Your task to perform on an android device: Search for "energizer triple a" on walmart.com, select the first entry, add it to the cart, then select checkout. Image 0: 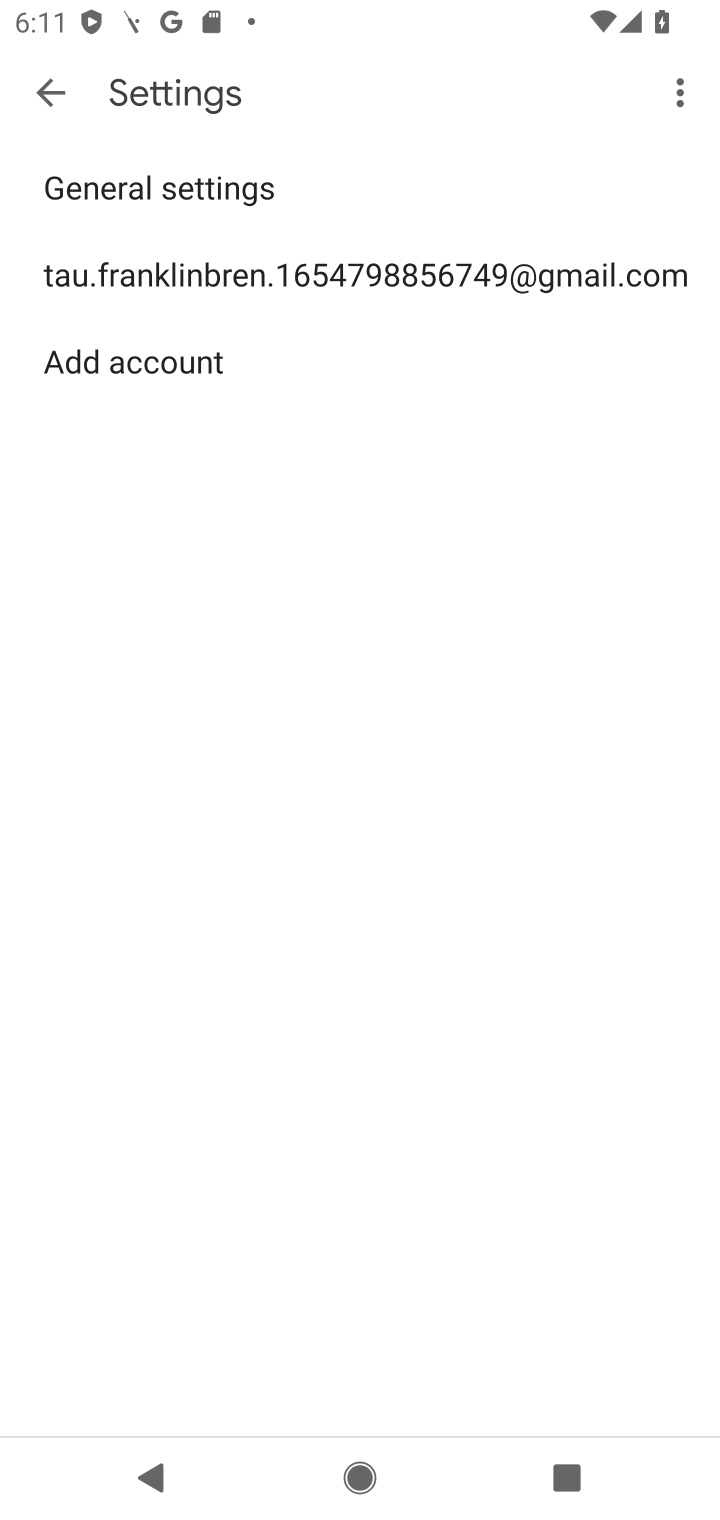
Step 0: press home button
Your task to perform on an android device: Search for "energizer triple a" on walmart.com, select the first entry, add it to the cart, then select checkout. Image 1: 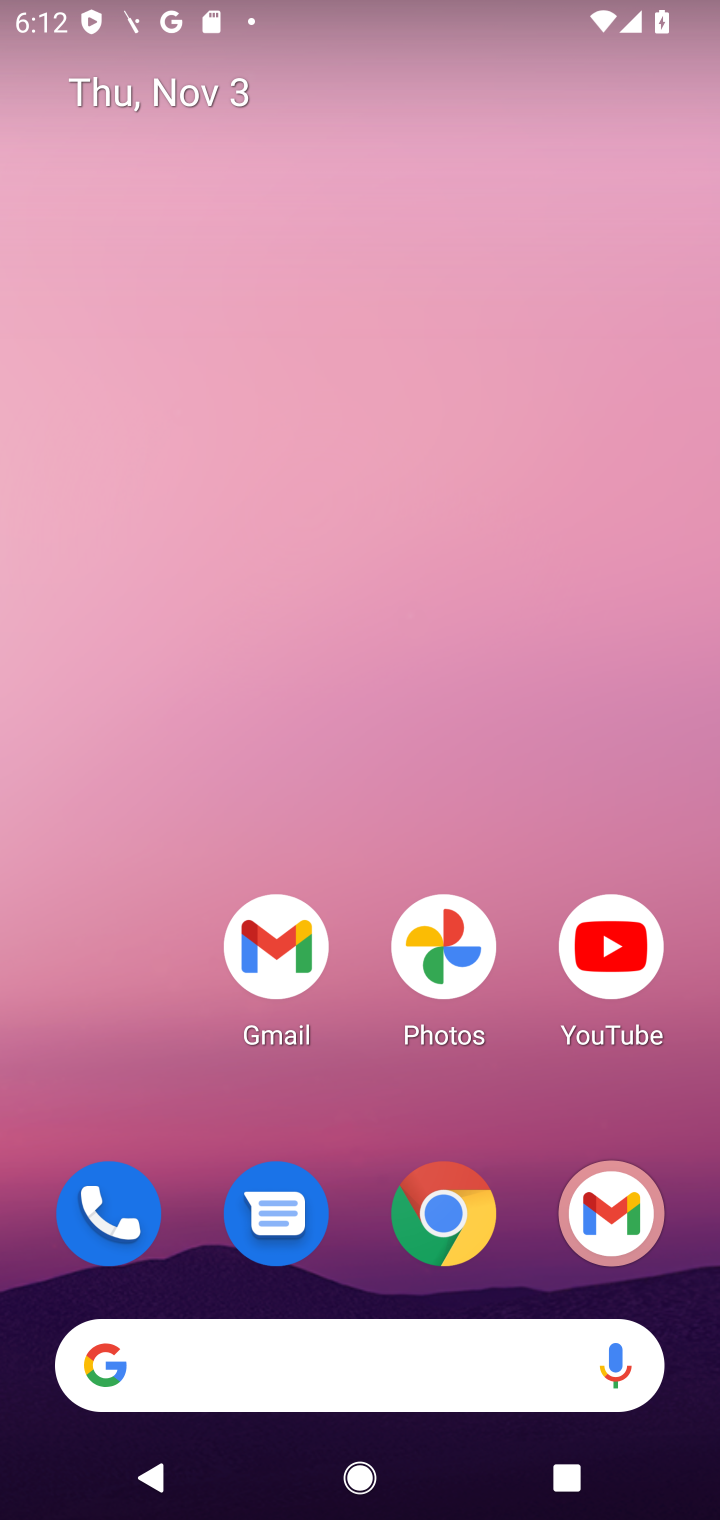
Step 1: click (452, 1229)
Your task to perform on an android device: Search for "energizer triple a" on walmart.com, select the first entry, add it to the cart, then select checkout. Image 2: 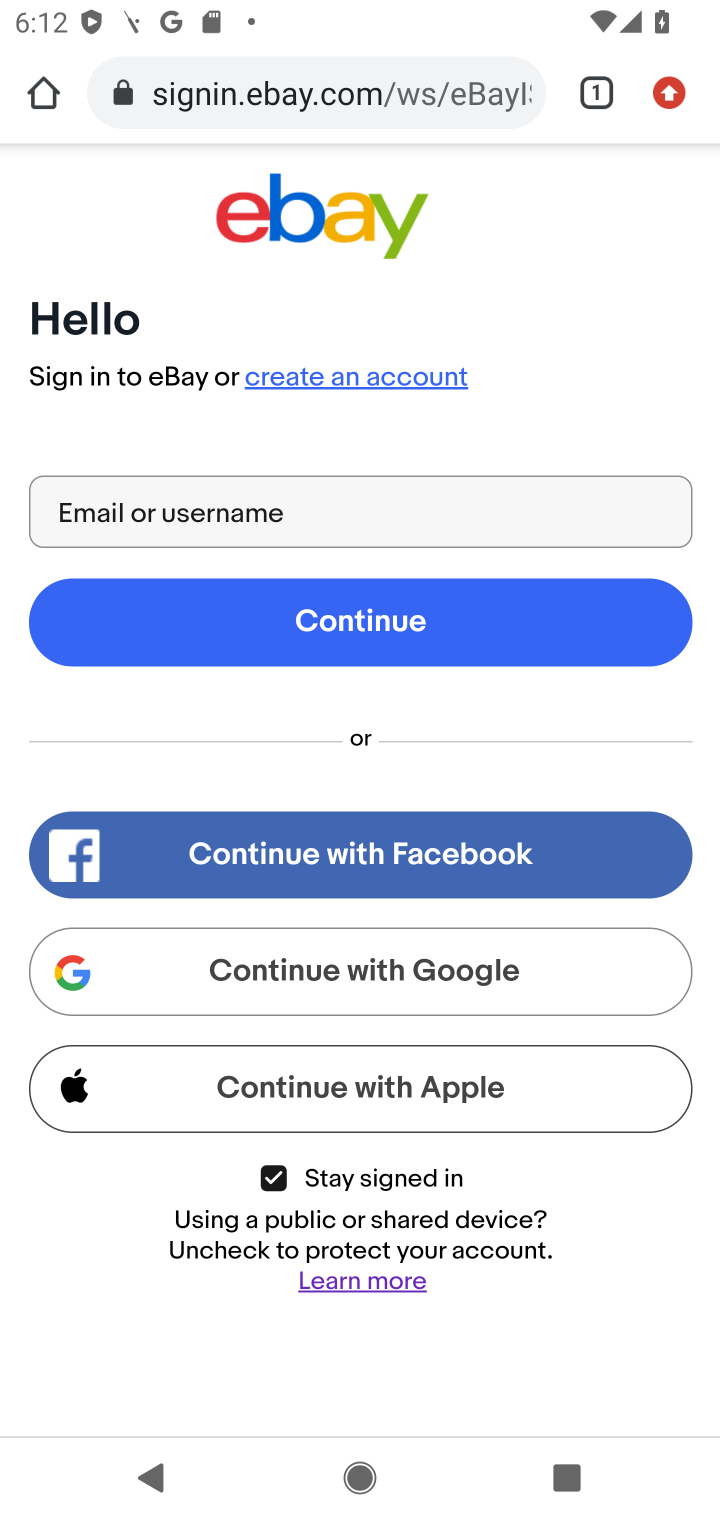
Step 2: click (327, 92)
Your task to perform on an android device: Search for "energizer triple a" on walmart.com, select the first entry, add it to the cart, then select checkout. Image 3: 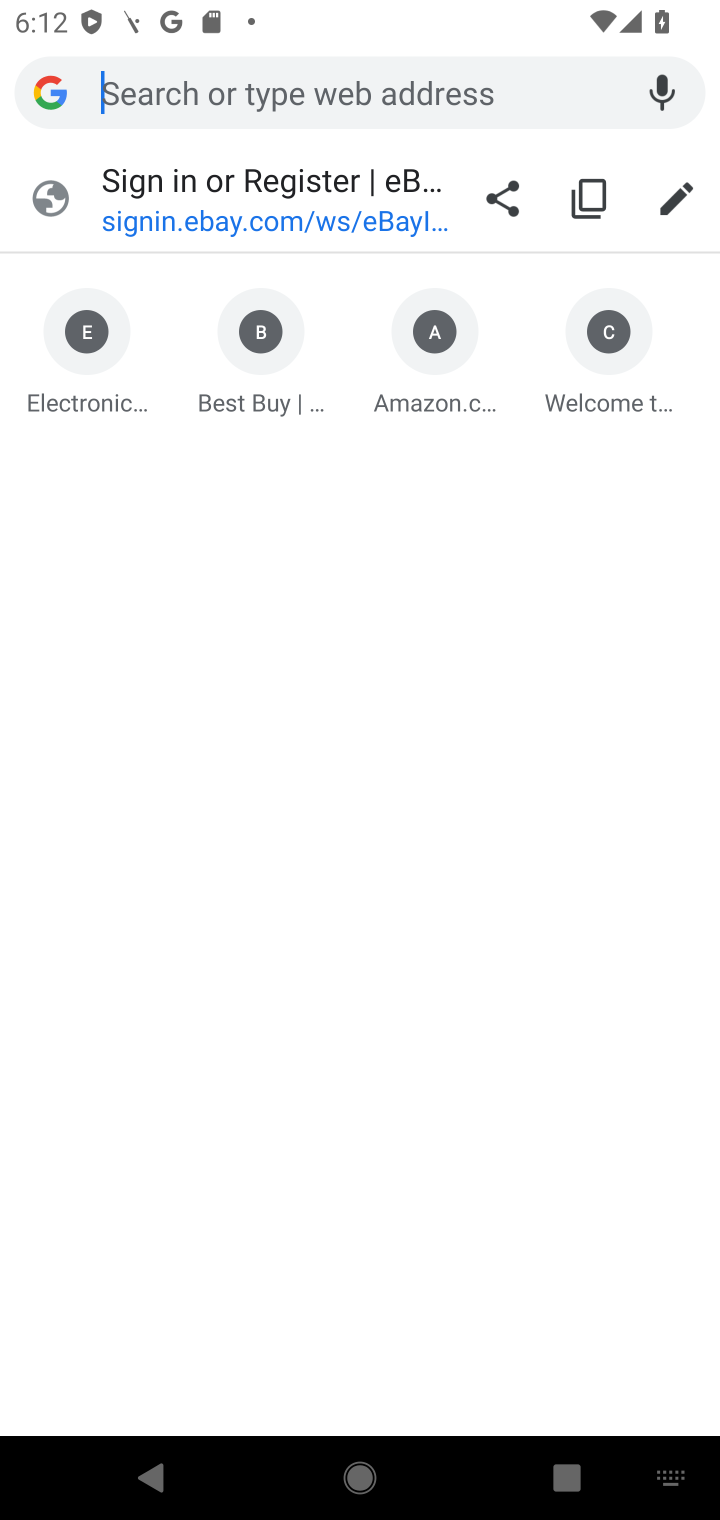
Step 3: type "walmart.com"
Your task to perform on an android device: Search for "energizer triple a" on walmart.com, select the first entry, add it to the cart, then select checkout. Image 4: 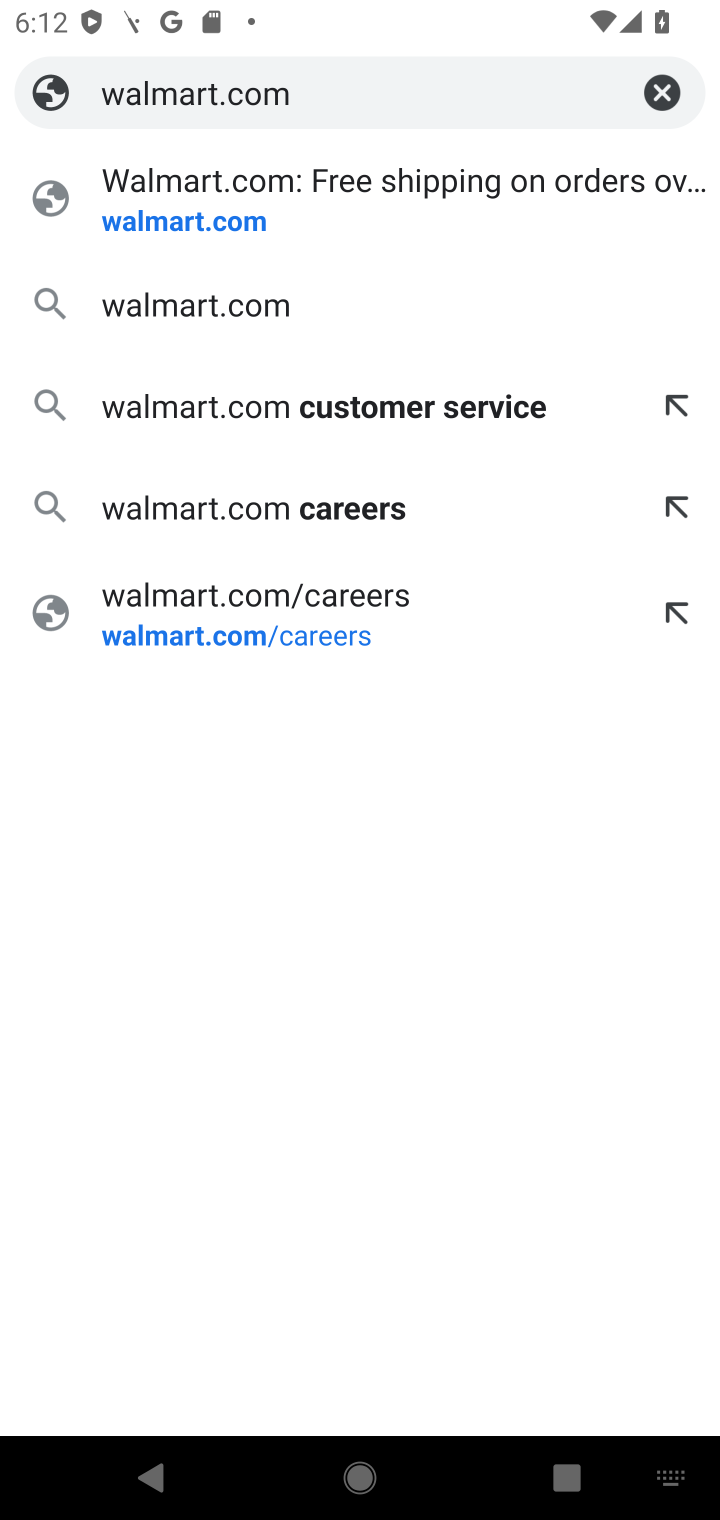
Step 4: click (197, 235)
Your task to perform on an android device: Search for "energizer triple a" on walmart.com, select the first entry, add it to the cart, then select checkout. Image 5: 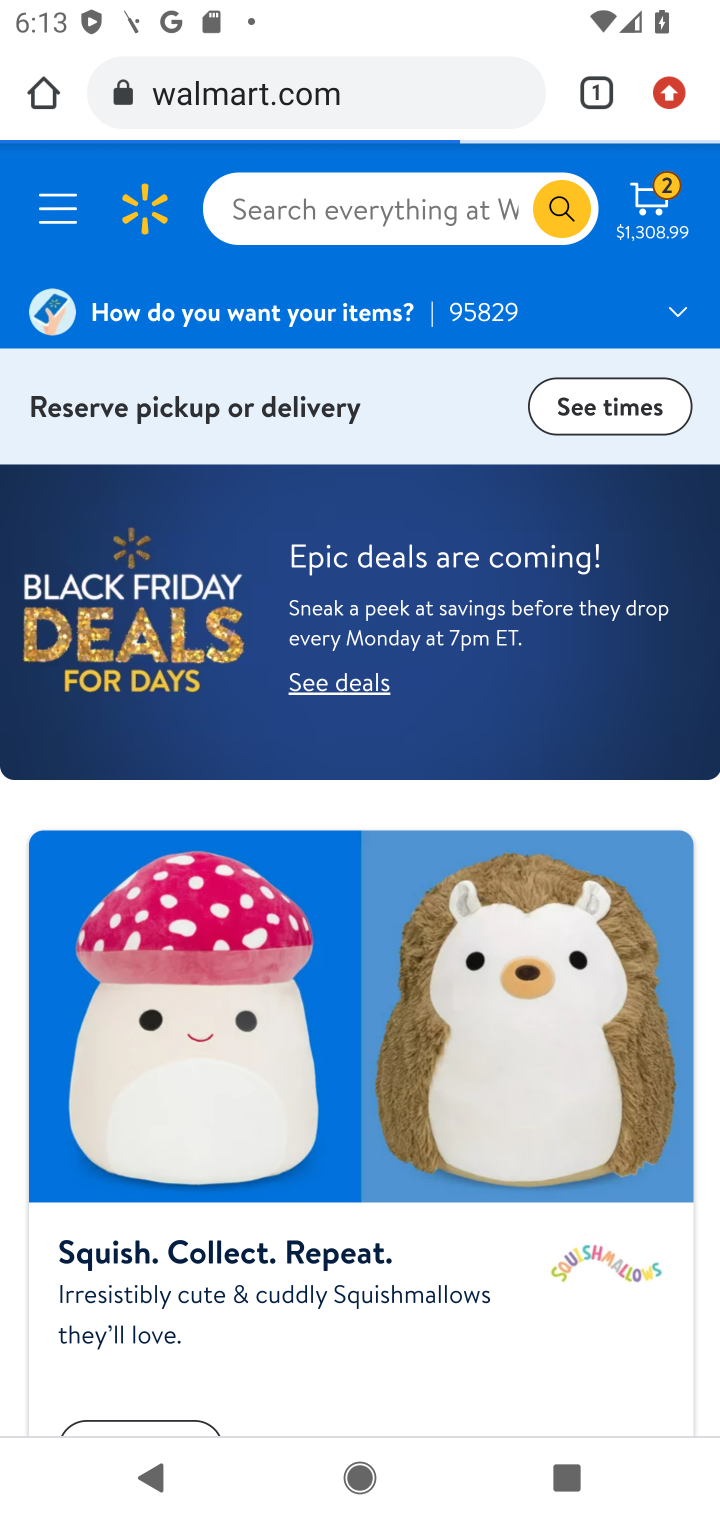
Step 5: click (298, 210)
Your task to perform on an android device: Search for "energizer triple a" on walmart.com, select the first entry, add it to the cart, then select checkout. Image 6: 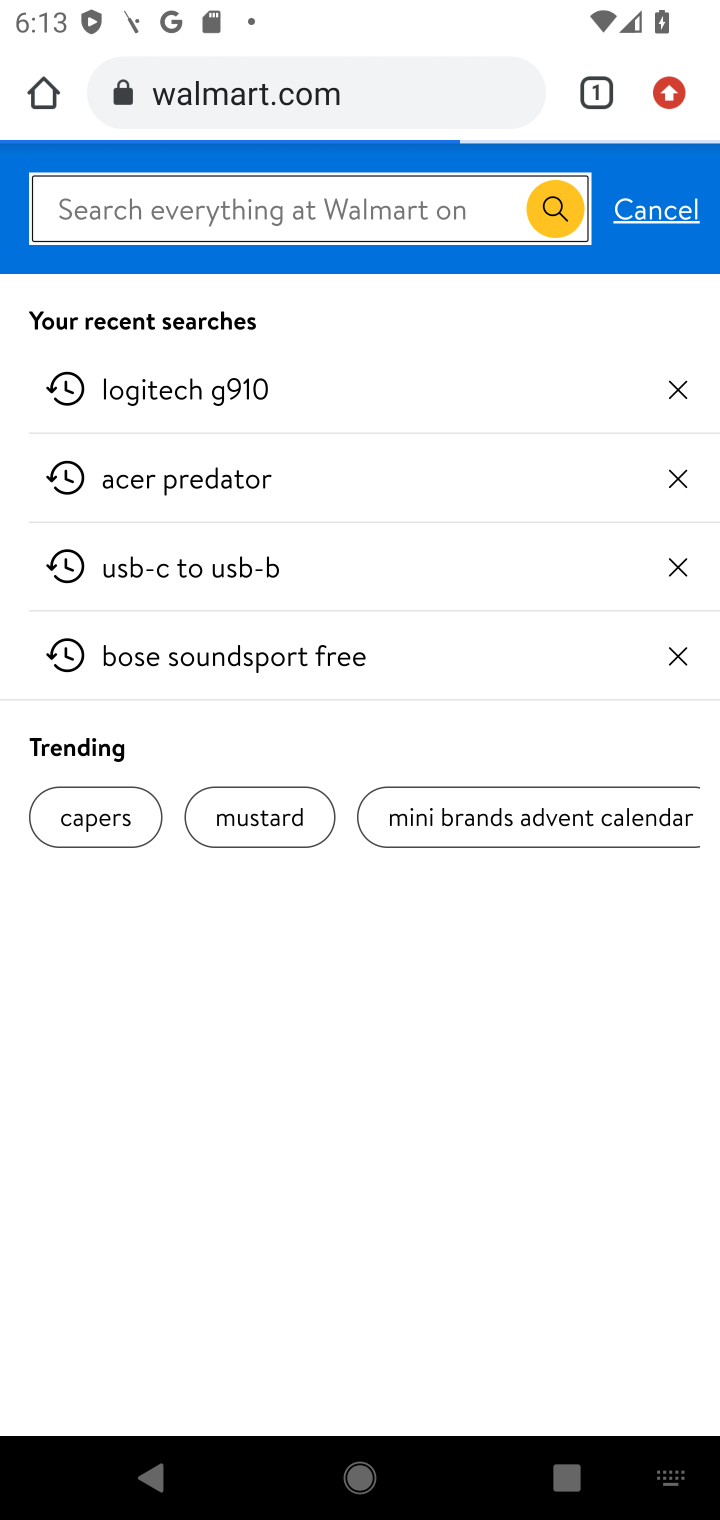
Step 6: type "energizer triple a"
Your task to perform on an android device: Search for "energizer triple a" on walmart.com, select the first entry, add it to the cart, then select checkout. Image 7: 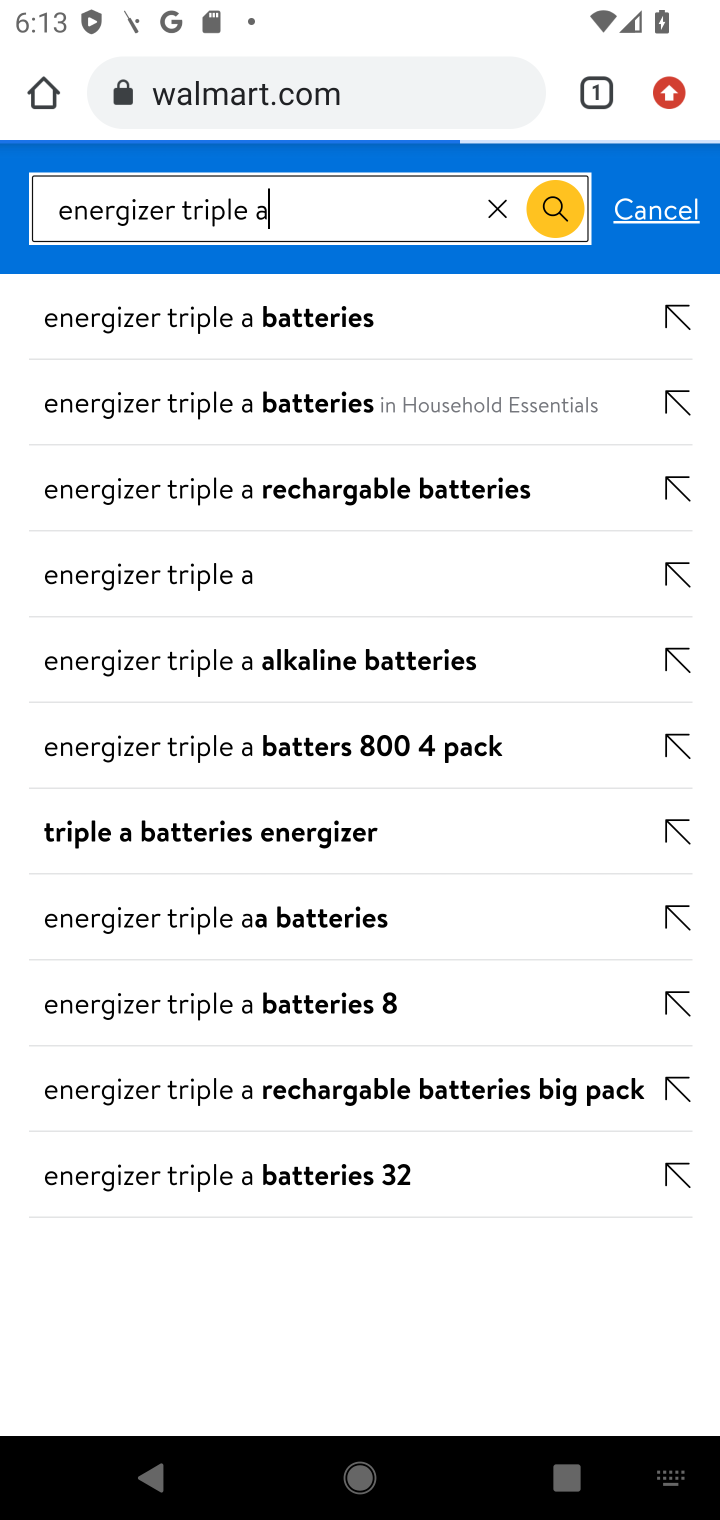
Step 7: click (196, 312)
Your task to perform on an android device: Search for "energizer triple a" on walmart.com, select the first entry, add it to the cart, then select checkout. Image 8: 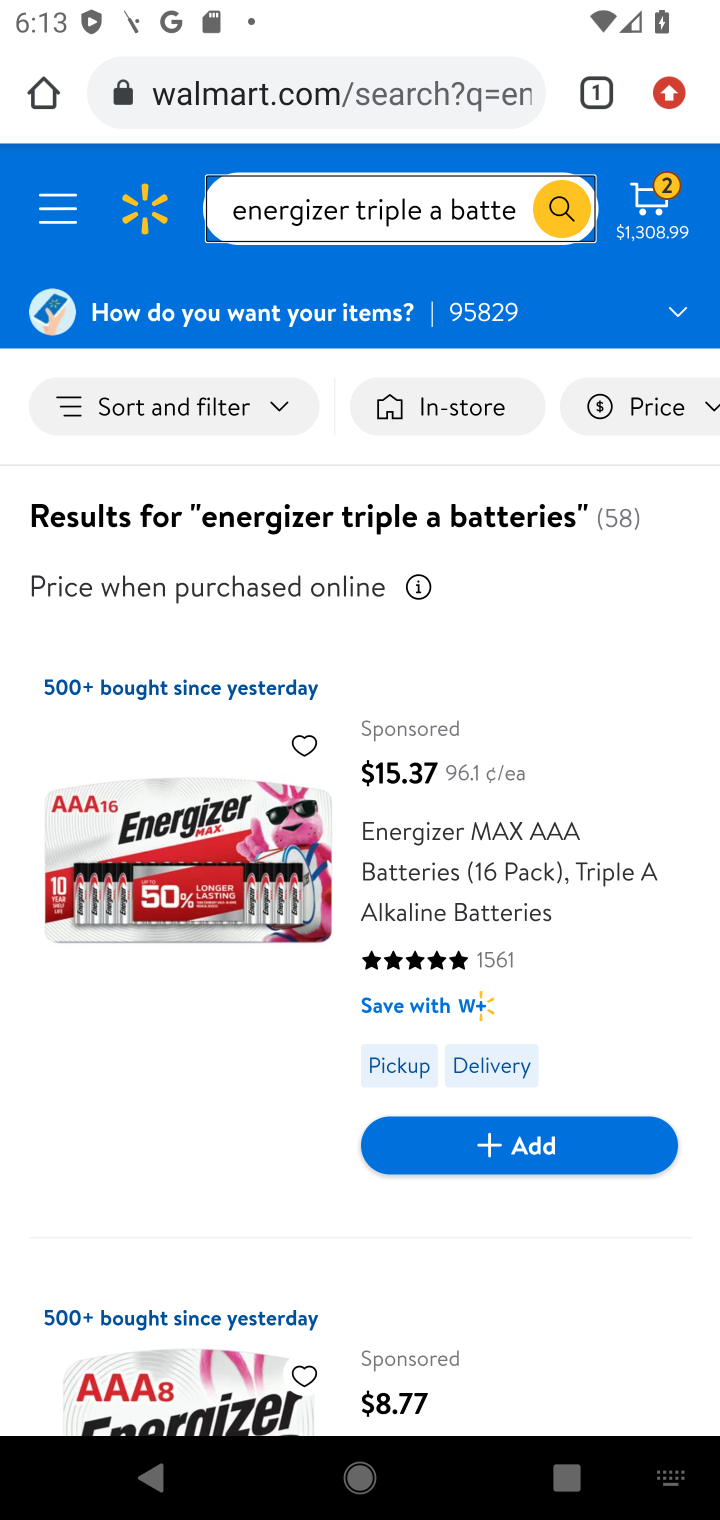
Step 8: click (515, 1176)
Your task to perform on an android device: Search for "energizer triple a" on walmart.com, select the first entry, add it to the cart, then select checkout. Image 9: 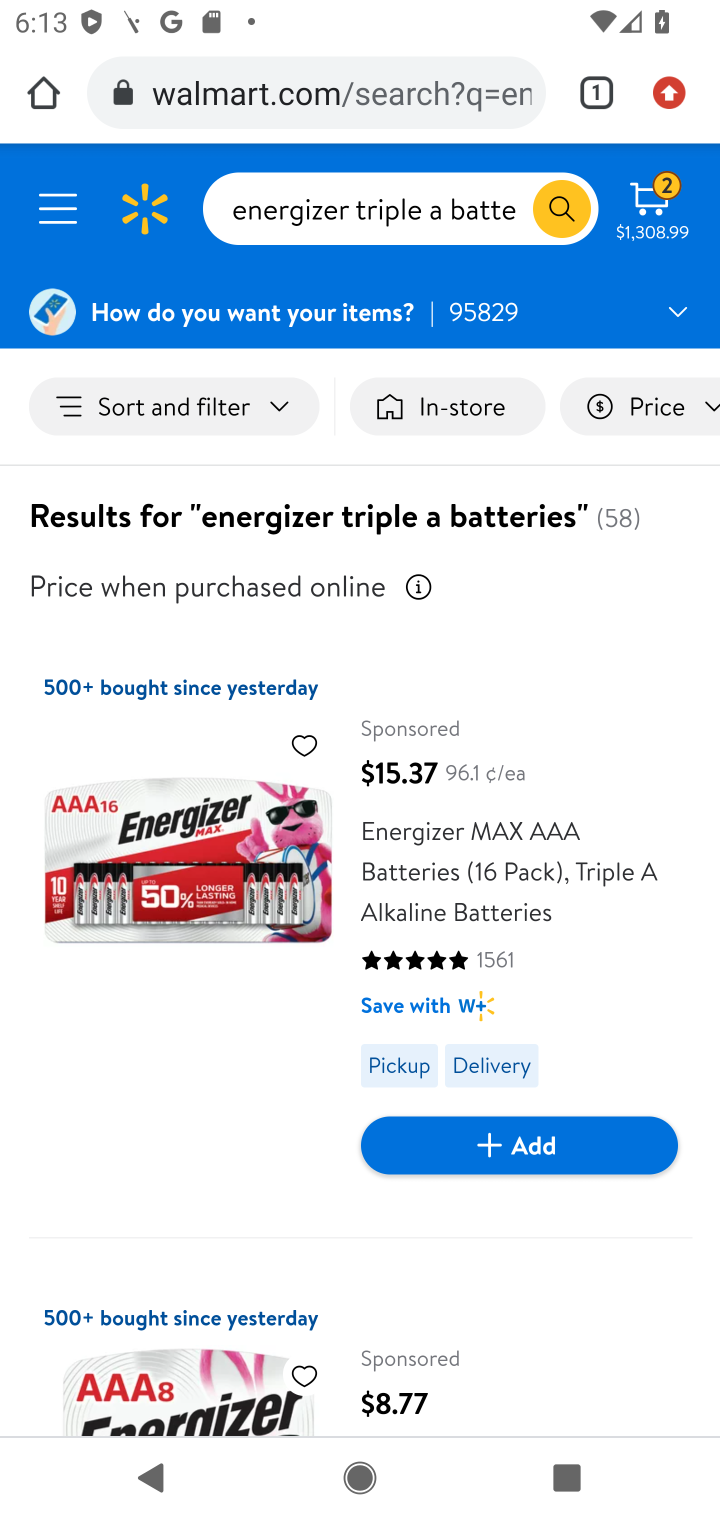
Step 9: click (528, 1150)
Your task to perform on an android device: Search for "energizer triple a" on walmart.com, select the first entry, add it to the cart, then select checkout. Image 10: 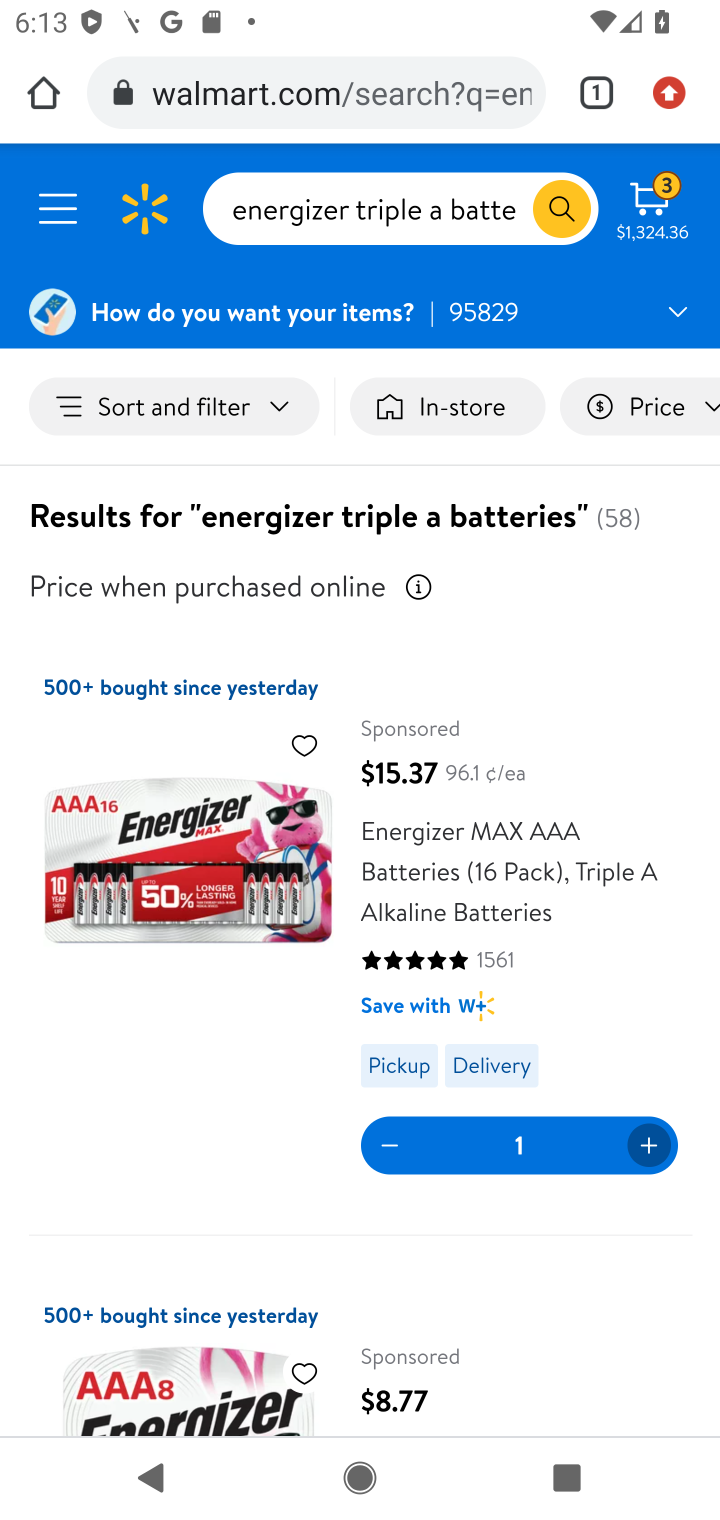
Step 10: click (666, 231)
Your task to perform on an android device: Search for "energizer triple a" on walmart.com, select the first entry, add it to the cart, then select checkout. Image 11: 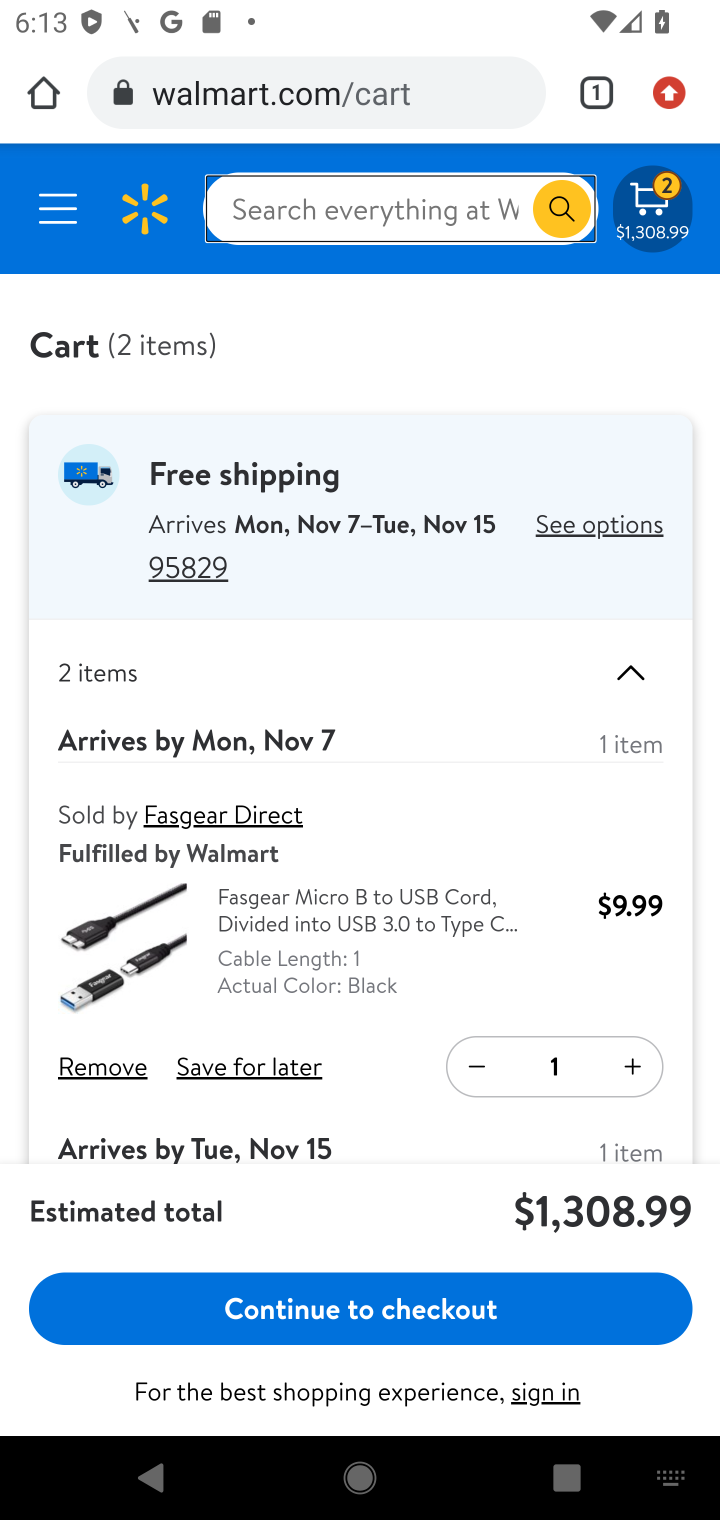
Step 11: click (332, 1310)
Your task to perform on an android device: Search for "energizer triple a" on walmart.com, select the first entry, add it to the cart, then select checkout. Image 12: 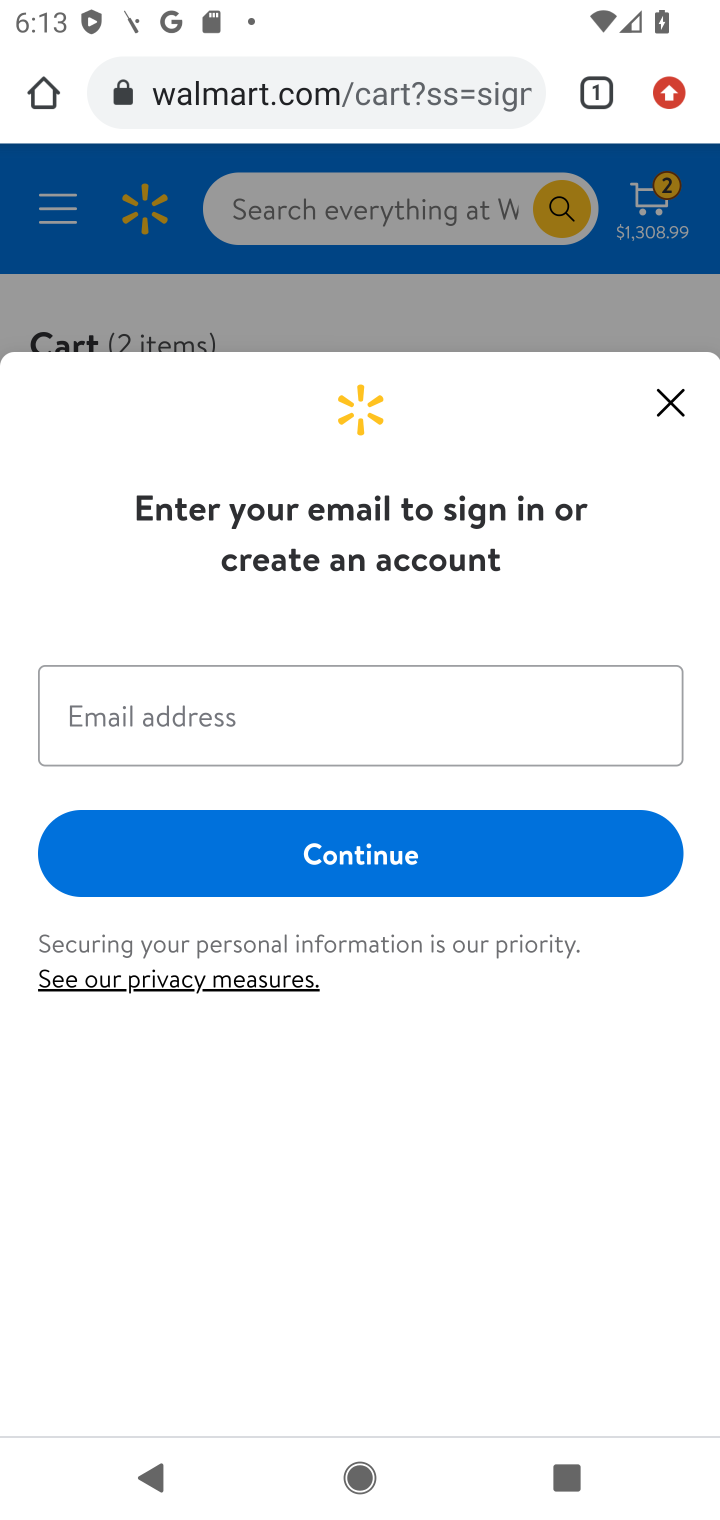
Step 12: task complete